Your task to perform on an android device: Search for the best movies of 2019  Image 0: 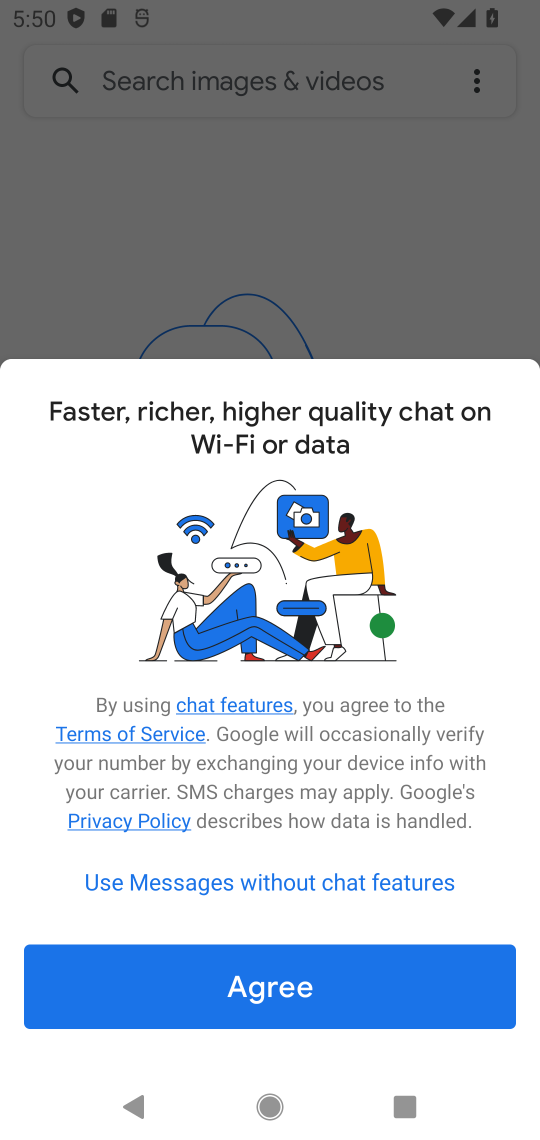
Step 0: press home button
Your task to perform on an android device: Search for the best movies of 2019  Image 1: 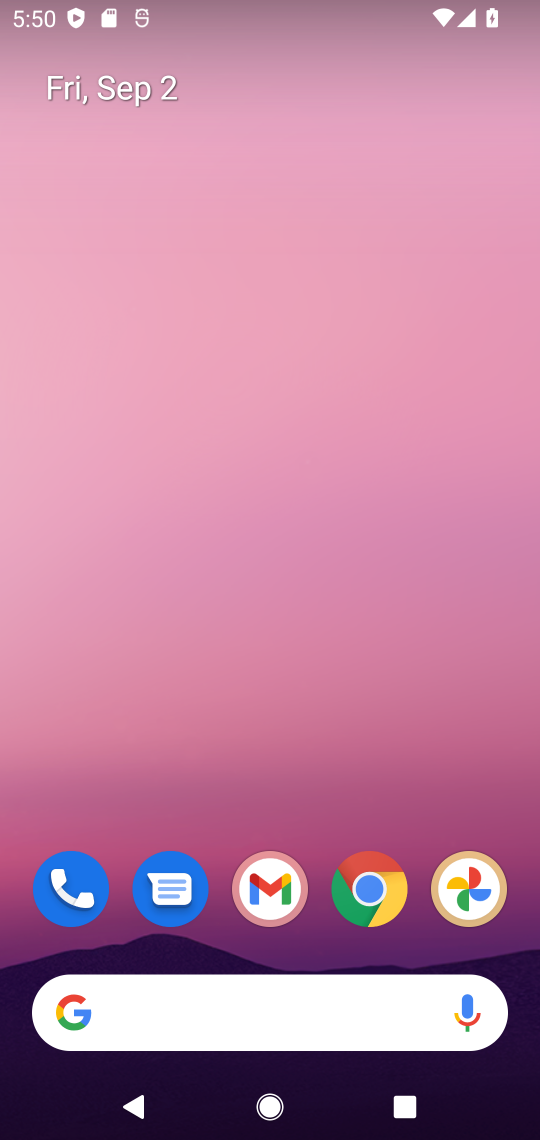
Step 1: click (270, 993)
Your task to perform on an android device: Search for the best movies of 2019  Image 2: 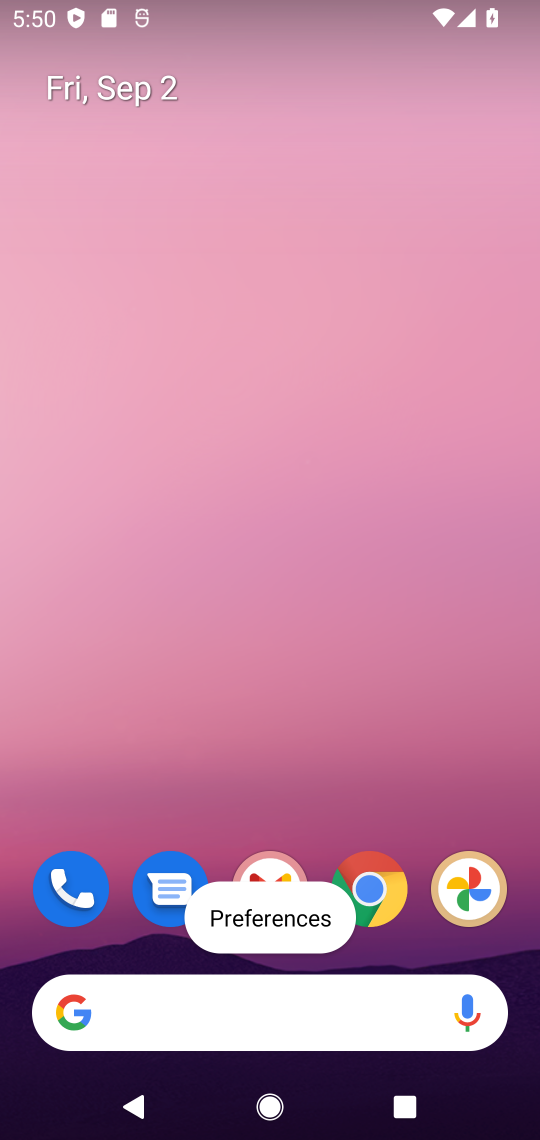
Step 2: click (175, 986)
Your task to perform on an android device: Search for the best movies of 2019  Image 3: 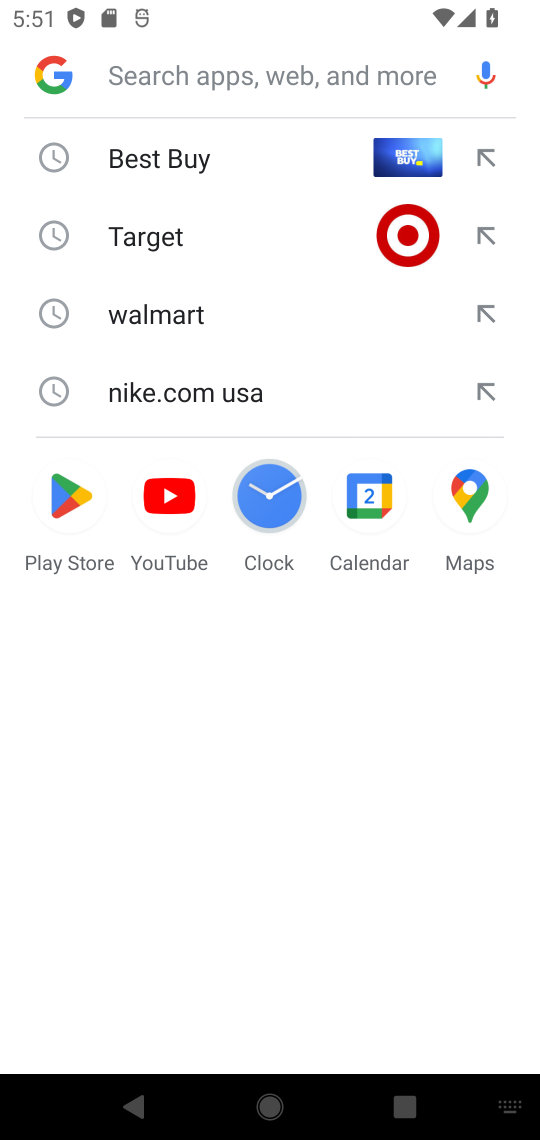
Step 3: type "best movies of 2019"
Your task to perform on an android device: Search for the best movies of 2019  Image 4: 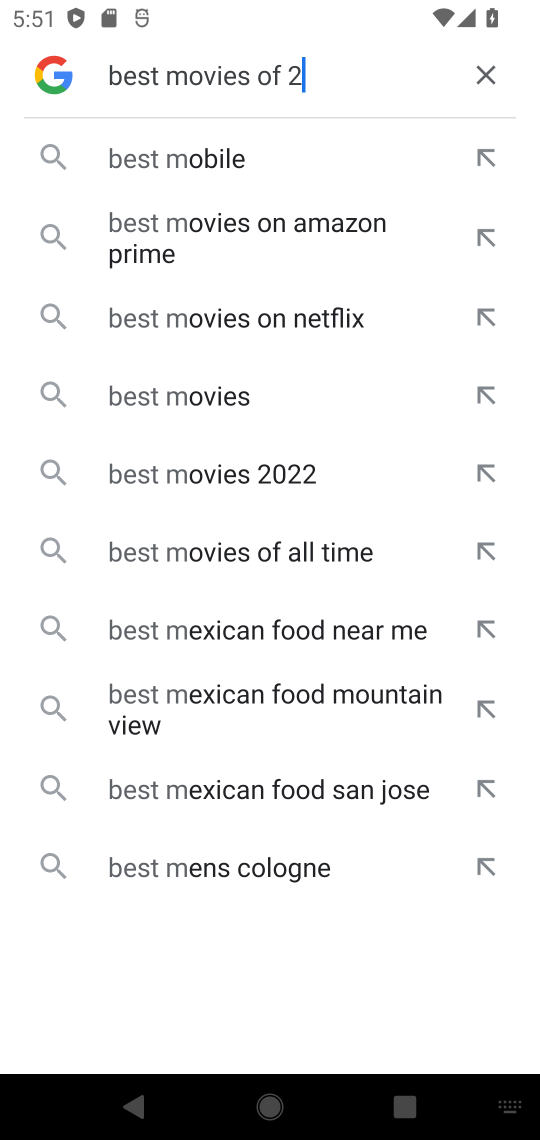
Step 4: type ""
Your task to perform on an android device: Search for the best movies of 2019  Image 5: 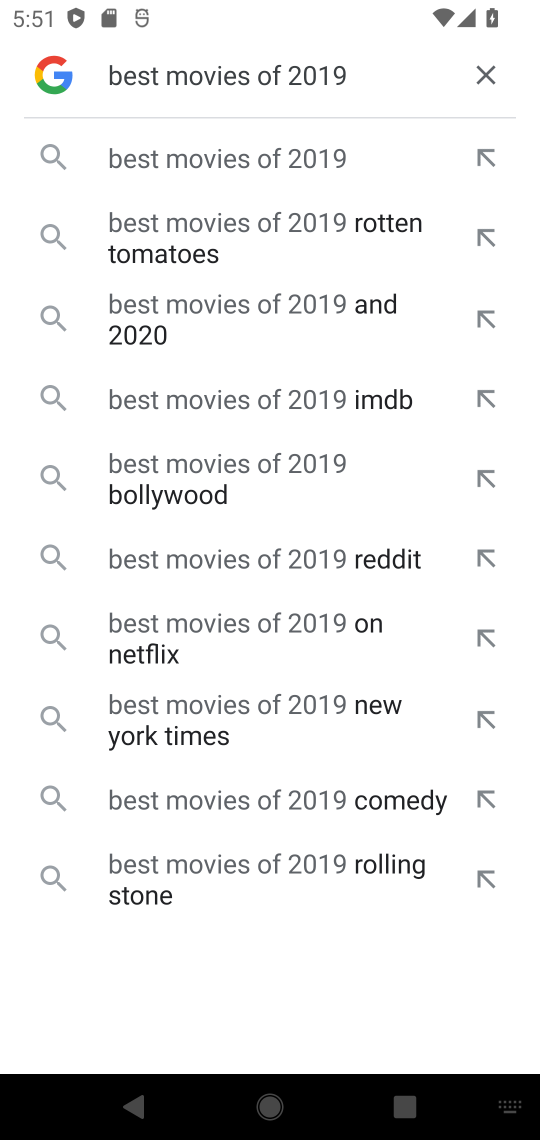
Step 5: click (330, 156)
Your task to perform on an android device: Search for the best movies of 2019  Image 6: 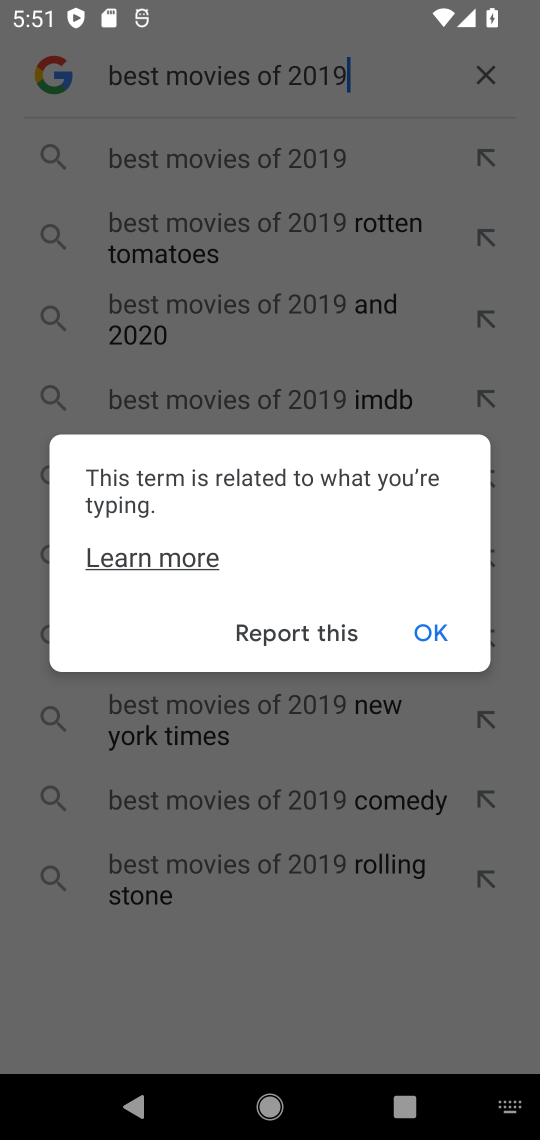
Step 6: click (408, 626)
Your task to perform on an android device: Search for the best movies of 2019  Image 7: 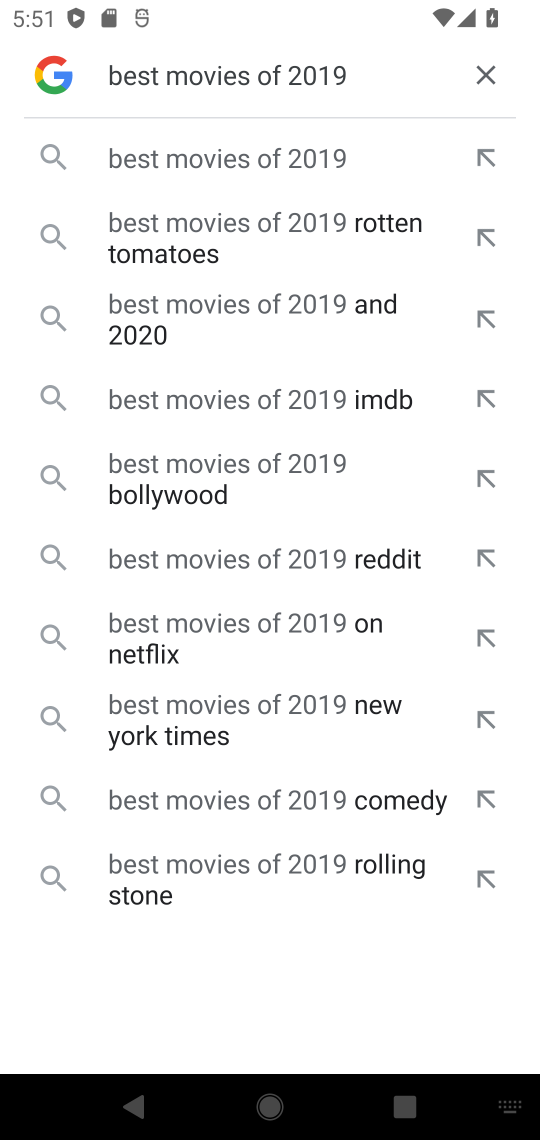
Step 7: click (294, 148)
Your task to perform on an android device: Search for the best movies of 2019  Image 8: 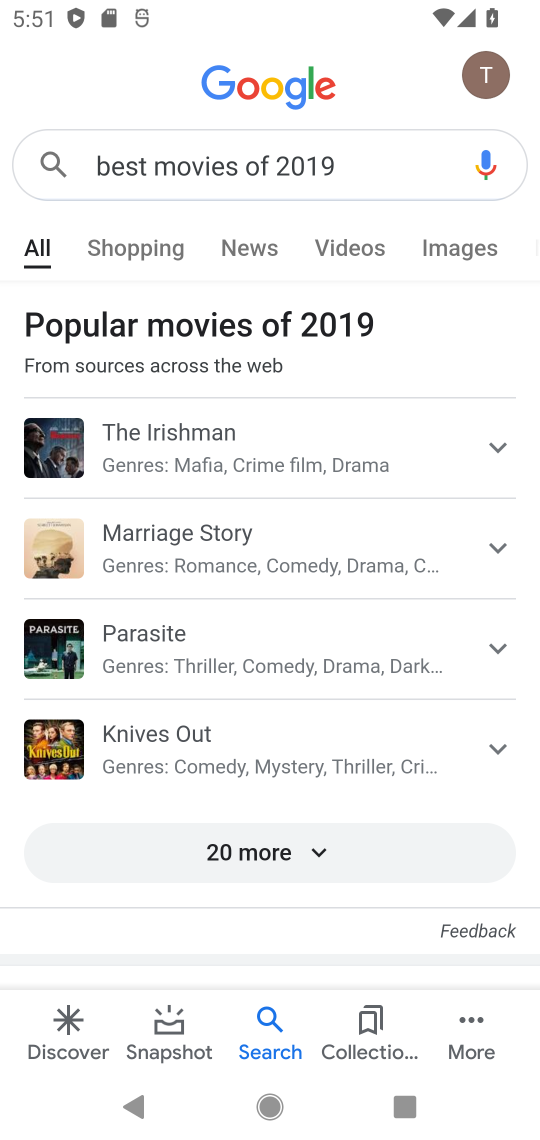
Step 8: click (404, 853)
Your task to perform on an android device: Search for the best movies of 2019  Image 9: 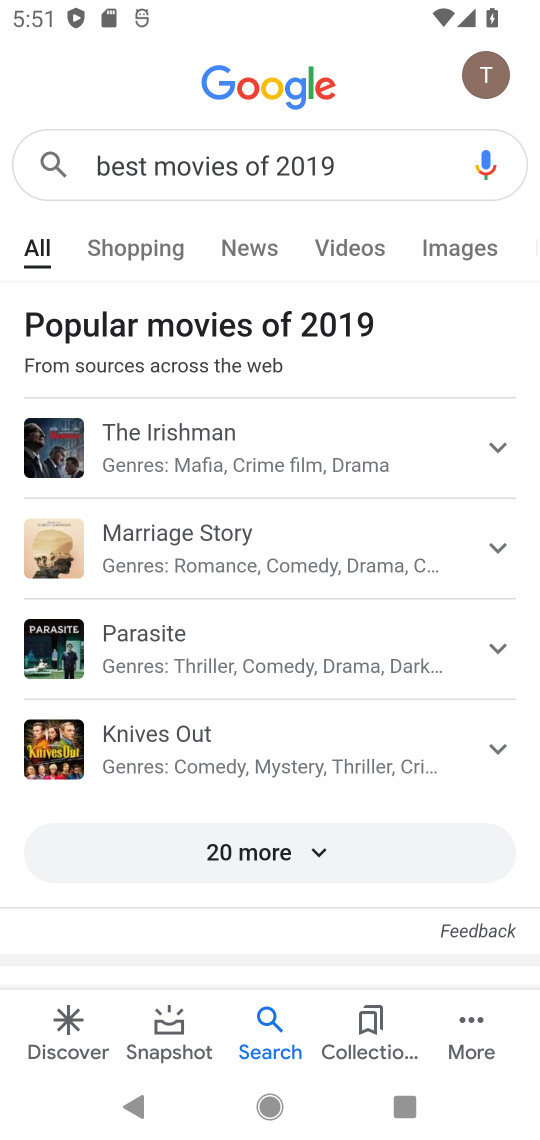
Step 9: click (382, 855)
Your task to perform on an android device: Search for the best movies of 2019  Image 10: 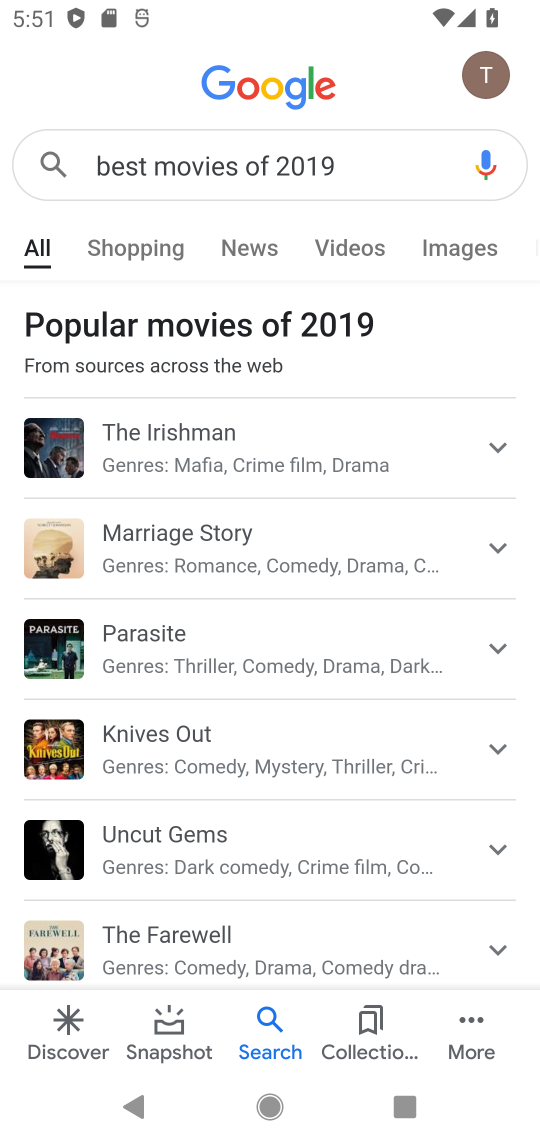
Step 10: task complete